Your task to perform on an android device: check the backup settings in the google photos Image 0: 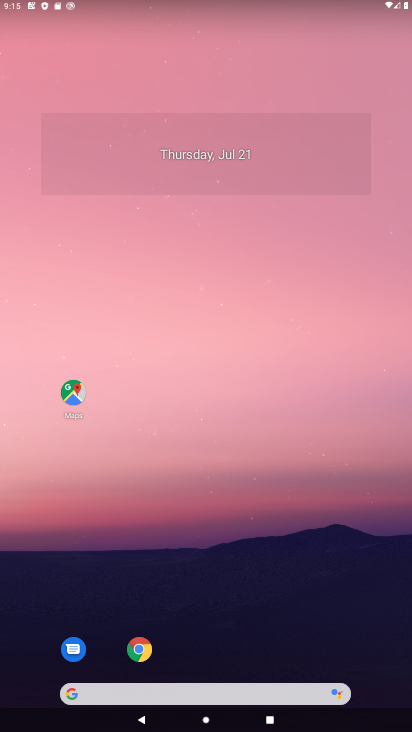
Step 0: drag from (284, 619) to (272, 44)
Your task to perform on an android device: check the backup settings in the google photos Image 1: 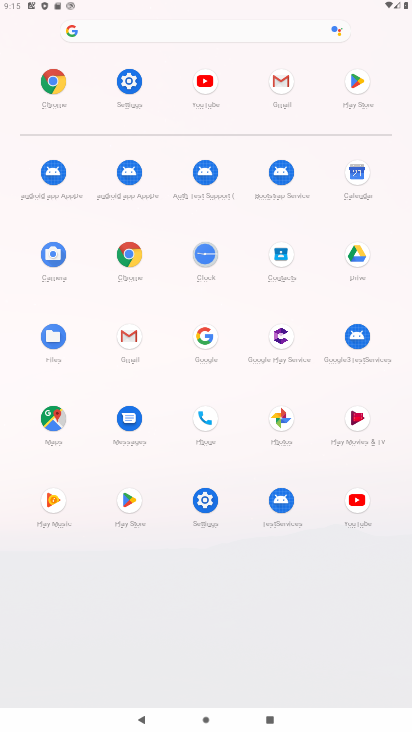
Step 1: click (283, 432)
Your task to perform on an android device: check the backup settings in the google photos Image 2: 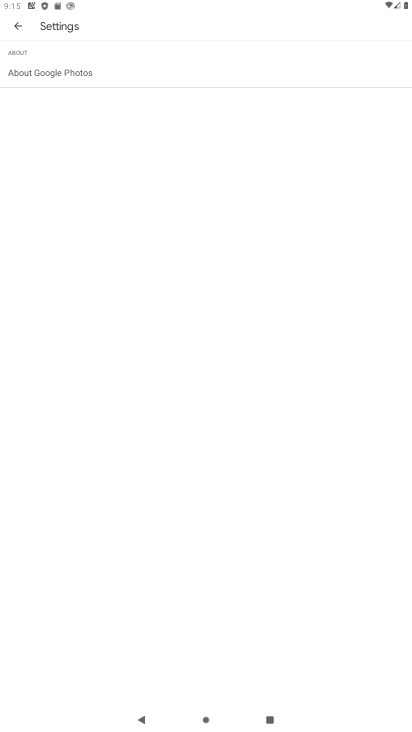
Step 2: click (15, 26)
Your task to perform on an android device: check the backup settings in the google photos Image 3: 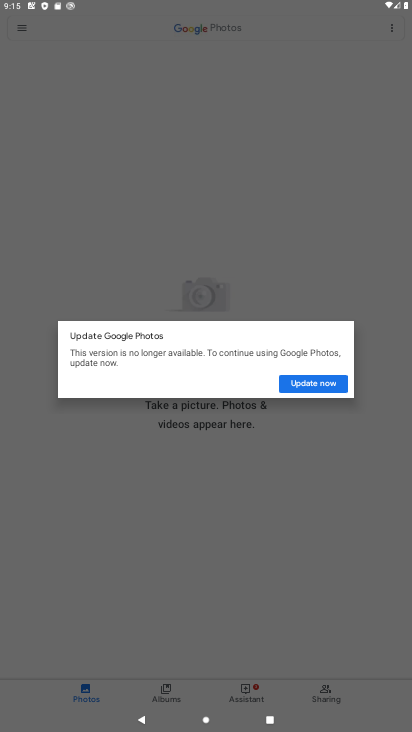
Step 3: click (326, 390)
Your task to perform on an android device: check the backup settings in the google photos Image 4: 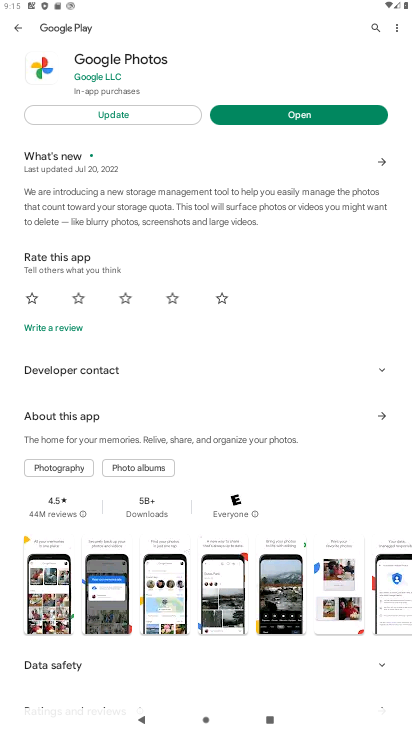
Step 4: click (321, 110)
Your task to perform on an android device: check the backup settings in the google photos Image 5: 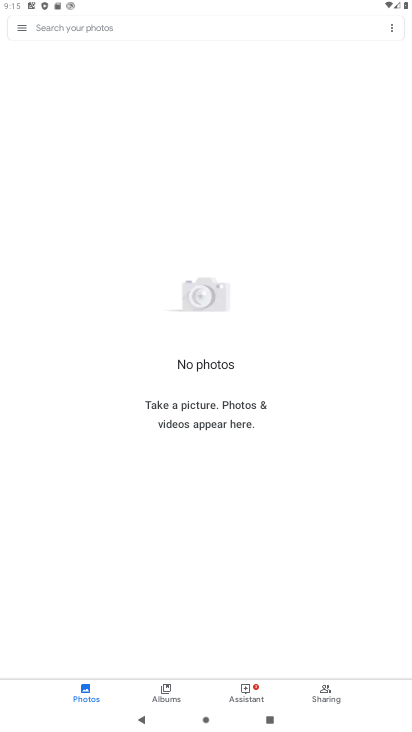
Step 5: click (21, 25)
Your task to perform on an android device: check the backup settings in the google photos Image 6: 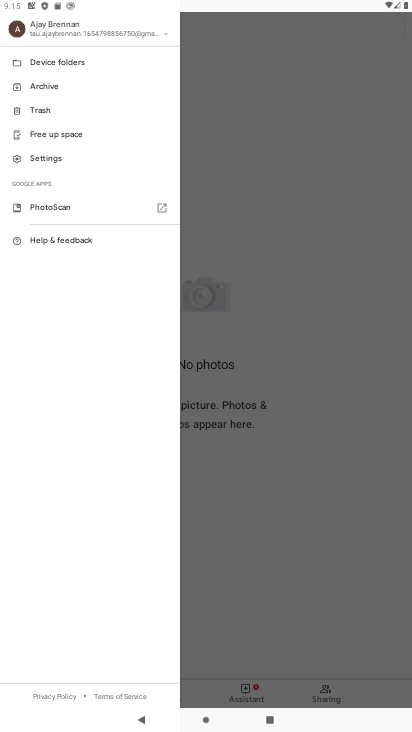
Step 6: click (60, 162)
Your task to perform on an android device: check the backup settings in the google photos Image 7: 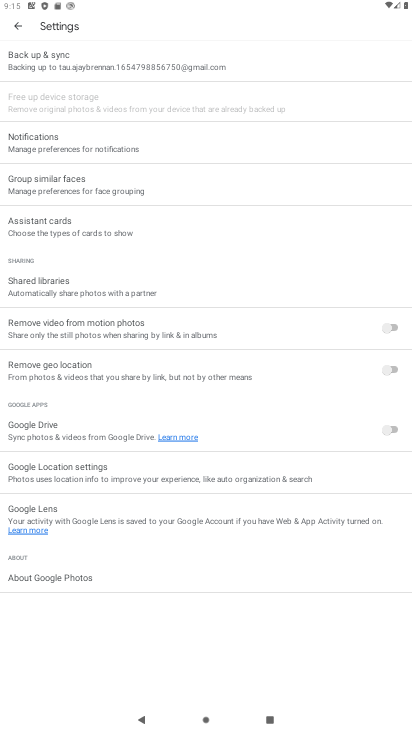
Step 7: click (60, 50)
Your task to perform on an android device: check the backup settings in the google photos Image 8: 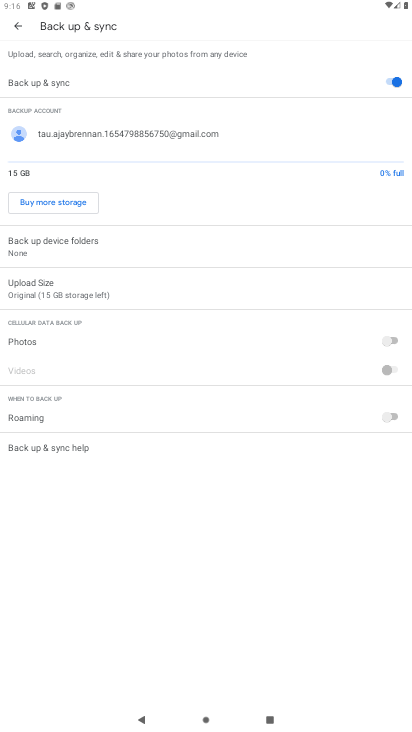
Step 8: task complete